Your task to perform on an android device: open a bookmark in the chrome app Image 0: 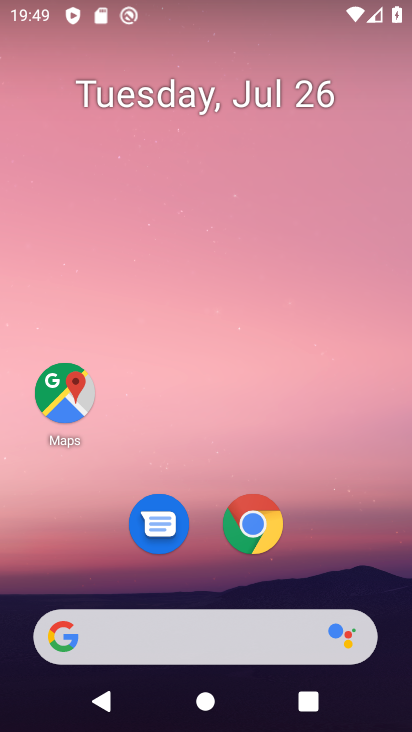
Step 0: click (248, 521)
Your task to perform on an android device: open a bookmark in the chrome app Image 1: 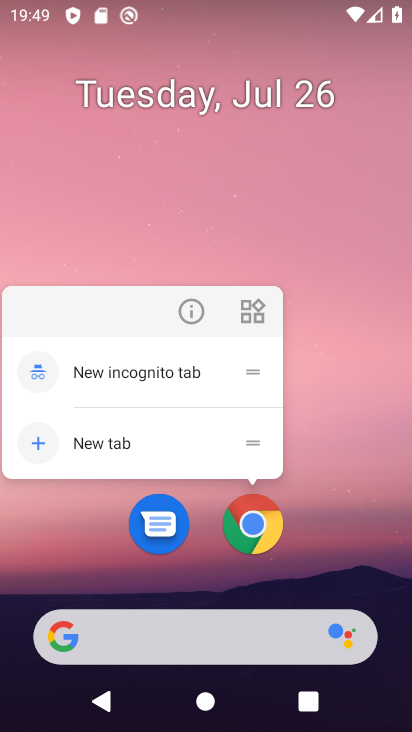
Step 1: click (253, 527)
Your task to perform on an android device: open a bookmark in the chrome app Image 2: 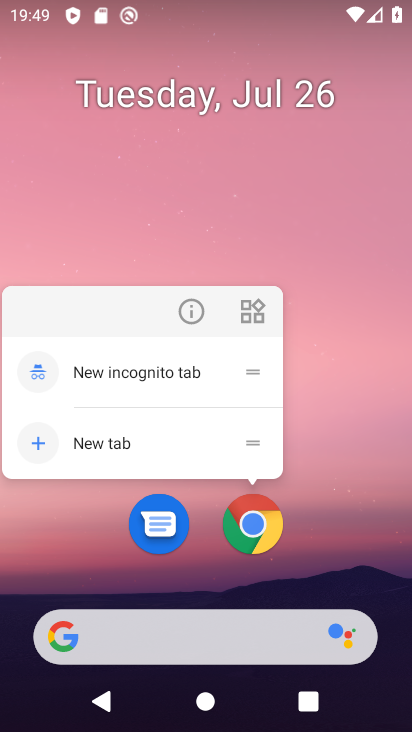
Step 2: click (253, 535)
Your task to perform on an android device: open a bookmark in the chrome app Image 3: 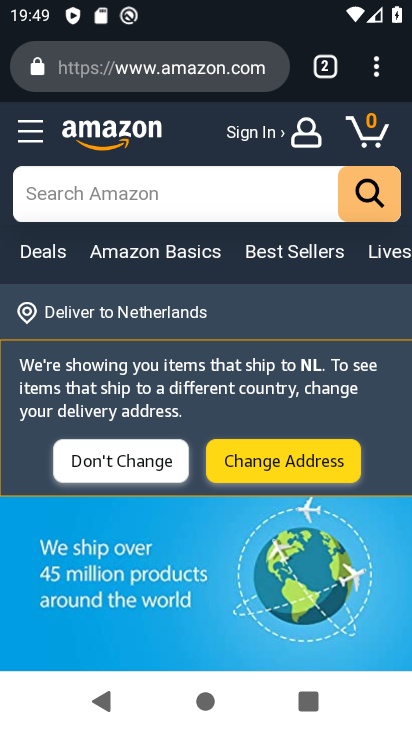
Step 3: task complete